Your task to perform on an android device: Open the calendar app, open the side menu, and click the "Day" option Image 0: 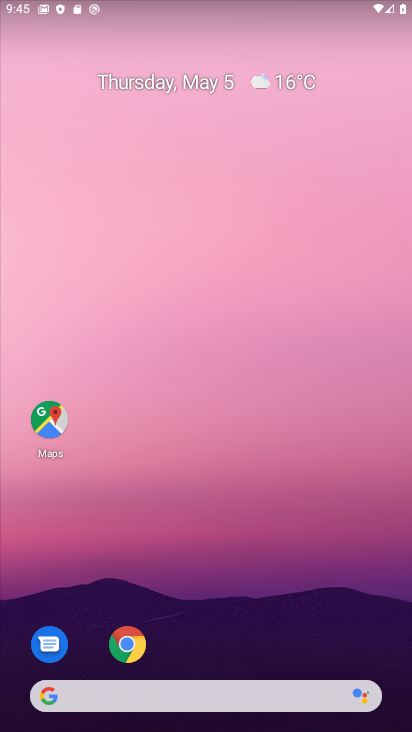
Step 0: drag from (289, 615) to (325, 90)
Your task to perform on an android device: Open the calendar app, open the side menu, and click the "Day" option Image 1: 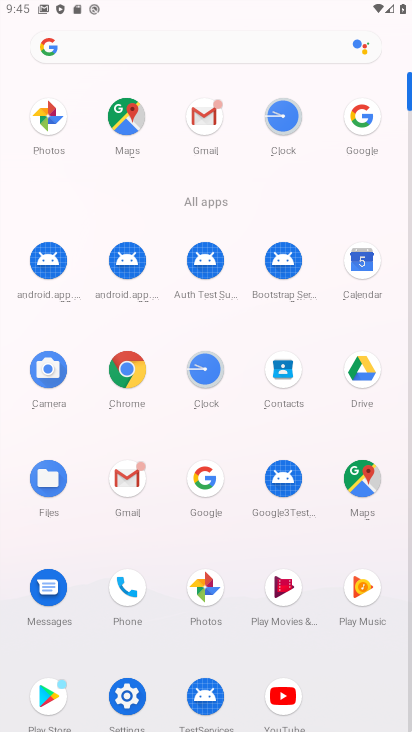
Step 1: click (361, 273)
Your task to perform on an android device: Open the calendar app, open the side menu, and click the "Day" option Image 2: 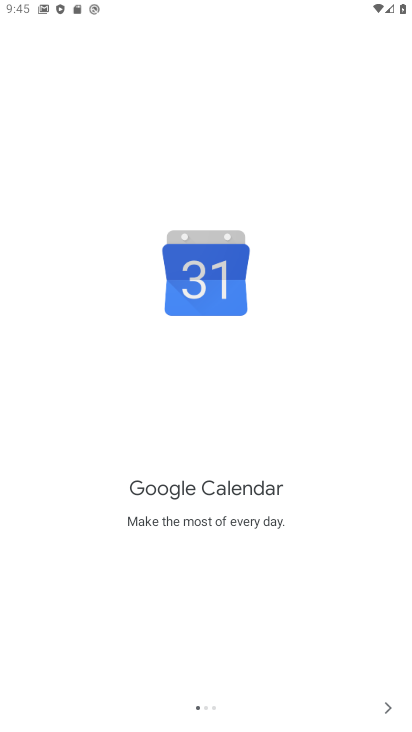
Step 2: click (382, 703)
Your task to perform on an android device: Open the calendar app, open the side menu, and click the "Day" option Image 3: 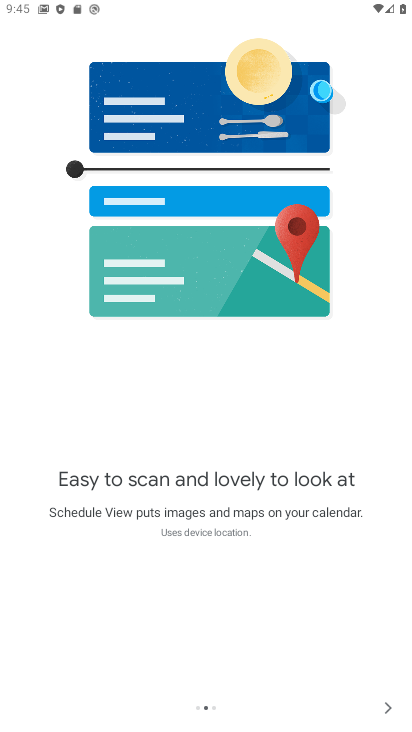
Step 3: click (381, 704)
Your task to perform on an android device: Open the calendar app, open the side menu, and click the "Day" option Image 4: 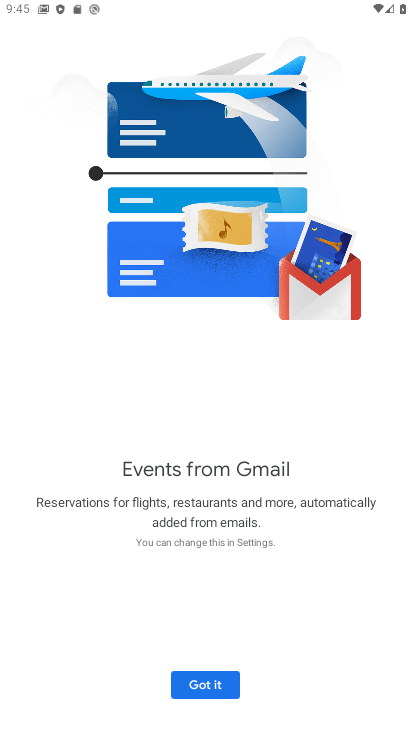
Step 4: click (210, 685)
Your task to perform on an android device: Open the calendar app, open the side menu, and click the "Day" option Image 5: 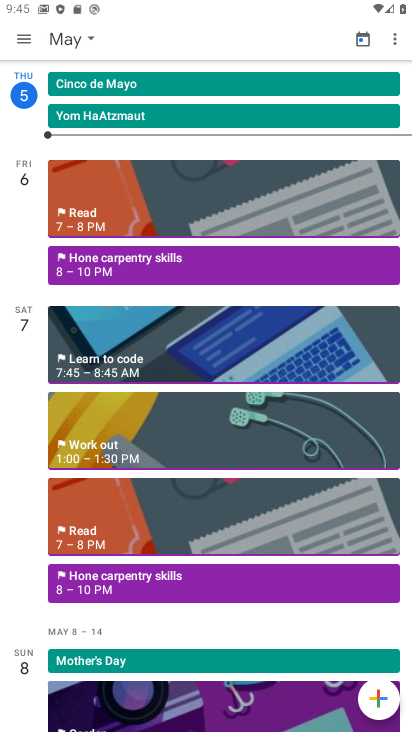
Step 5: click (29, 36)
Your task to perform on an android device: Open the calendar app, open the side menu, and click the "Day" option Image 6: 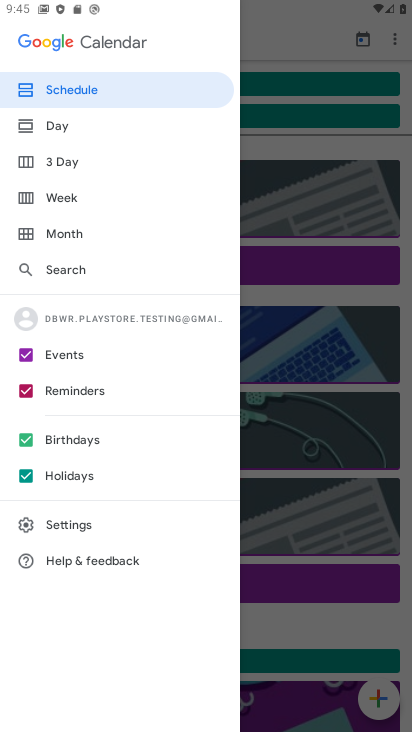
Step 6: click (48, 126)
Your task to perform on an android device: Open the calendar app, open the side menu, and click the "Day" option Image 7: 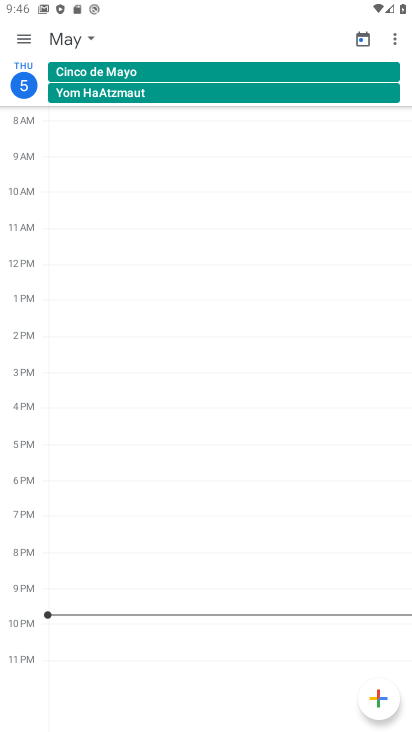
Step 7: task complete